Your task to perform on an android device: turn on wifi Image 0: 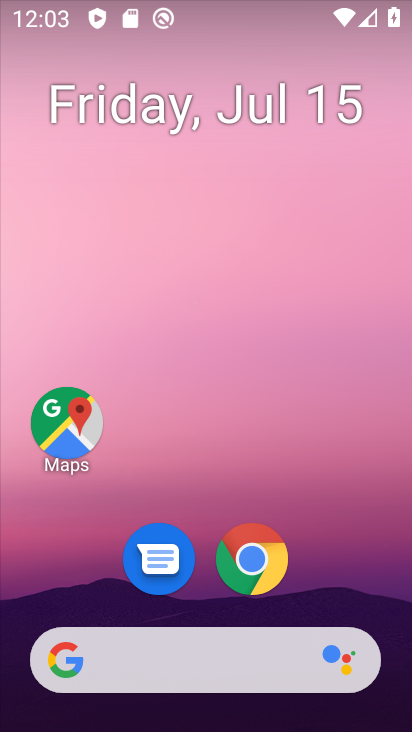
Step 0: drag from (365, 588) to (403, 72)
Your task to perform on an android device: turn on wifi Image 1: 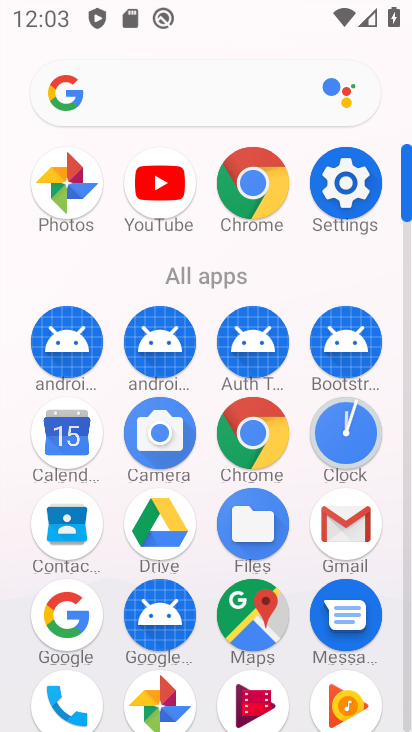
Step 1: click (341, 197)
Your task to perform on an android device: turn on wifi Image 2: 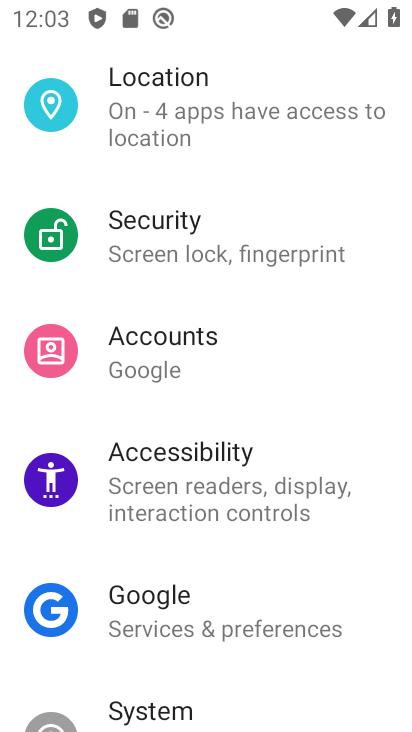
Step 2: drag from (341, 198) to (351, 325)
Your task to perform on an android device: turn on wifi Image 3: 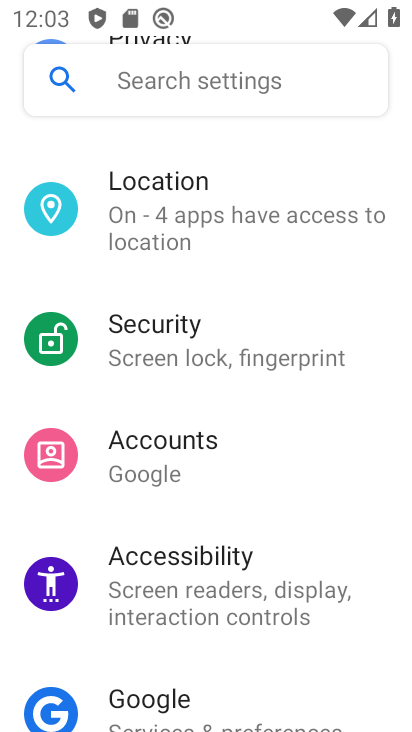
Step 3: drag from (363, 265) to (367, 383)
Your task to perform on an android device: turn on wifi Image 4: 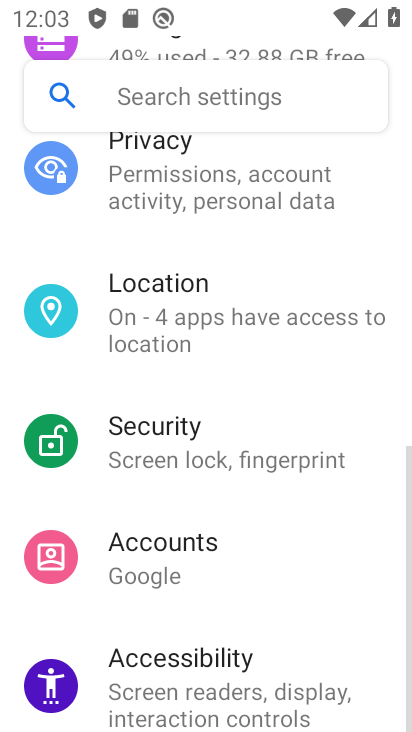
Step 4: drag from (371, 259) to (351, 453)
Your task to perform on an android device: turn on wifi Image 5: 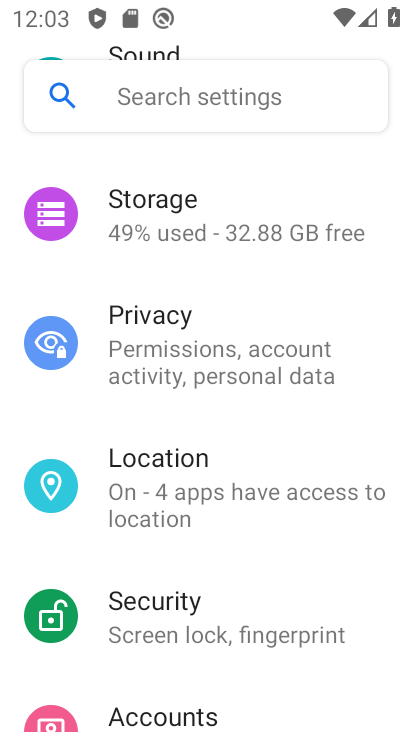
Step 5: drag from (339, 343) to (325, 505)
Your task to perform on an android device: turn on wifi Image 6: 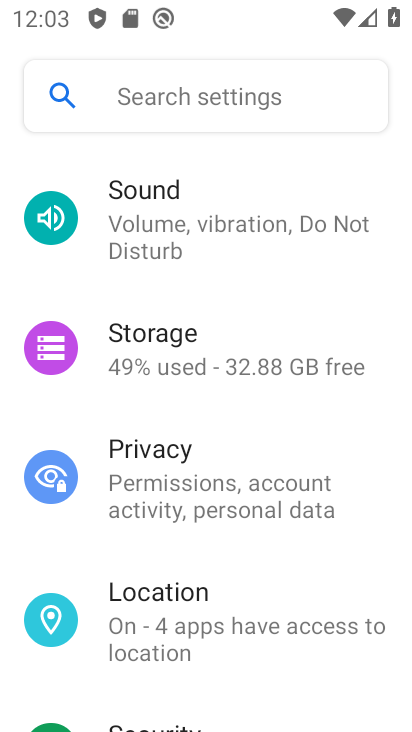
Step 6: drag from (351, 293) to (342, 425)
Your task to perform on an android device: turn on wifi Image 7: 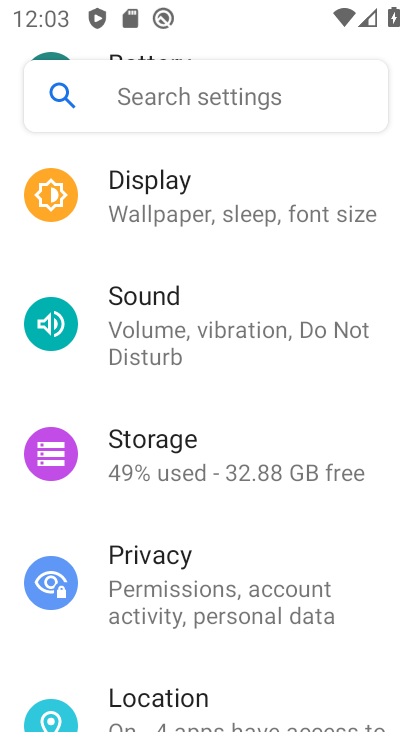
Step 7: drag from (367, 270) to (367, 377)
Your task to perform on an android device: turn on wifi Image 8: 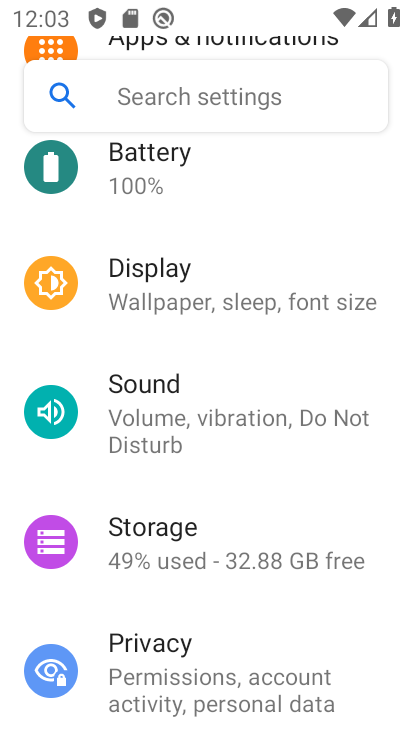
Step 8: drag from (364, 220) to (360, 355)
Your task to perform on an android device: turn on wifi Image 9: 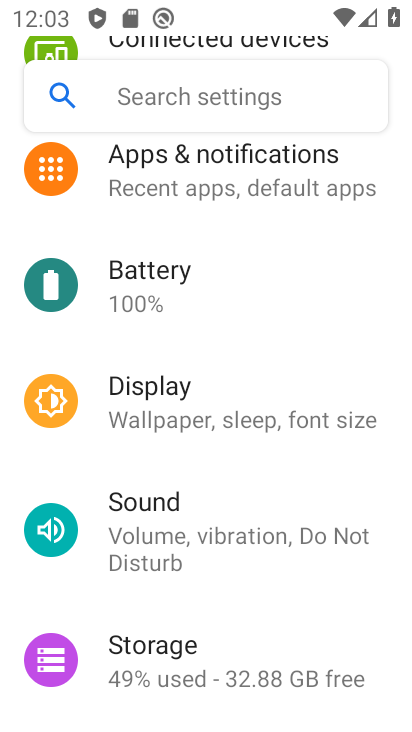
Step 9: drag from (374, 249) to (369, 372)
Your task to perform on an android device: turn on wifi Image 10: 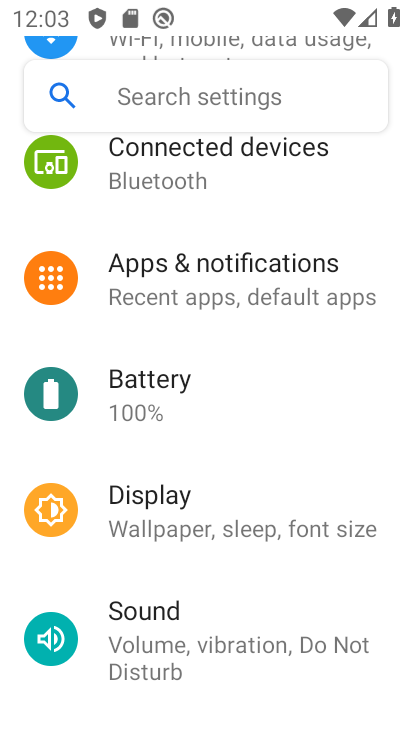
Step 10: drag from (378, 208) to (366, 340)
Your task to perform on an android device: turn on wifi Image 11: 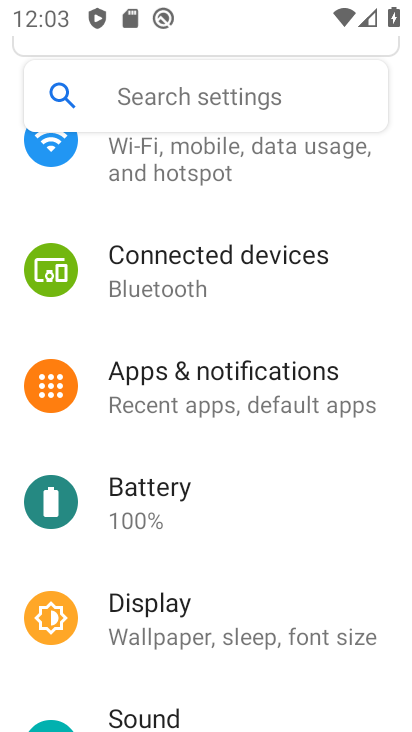
Step 11: drag from (366, 228) to (354, 367)
Your task to perform on an android device: turn on wifi Image 12: 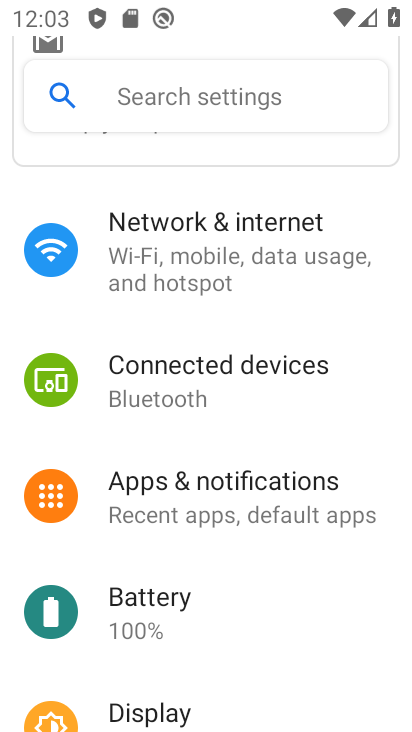
Step 12: click (313, 257)
Your task to perform on an android device: turn on wifi Image 13: 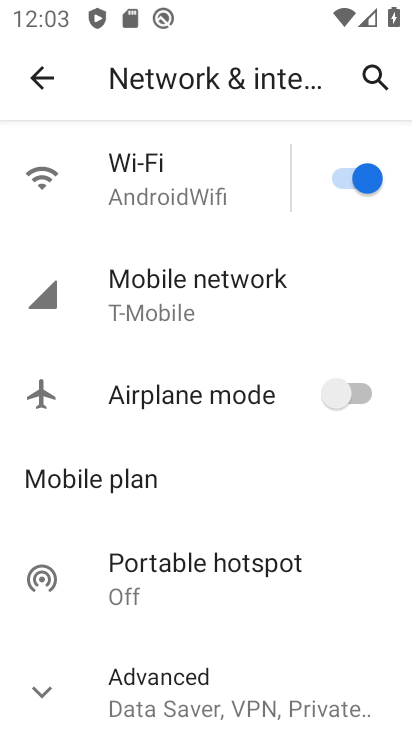
Step 13: task complete